Your task to perform on an android device: Open Chrome and go to settings Image 0: 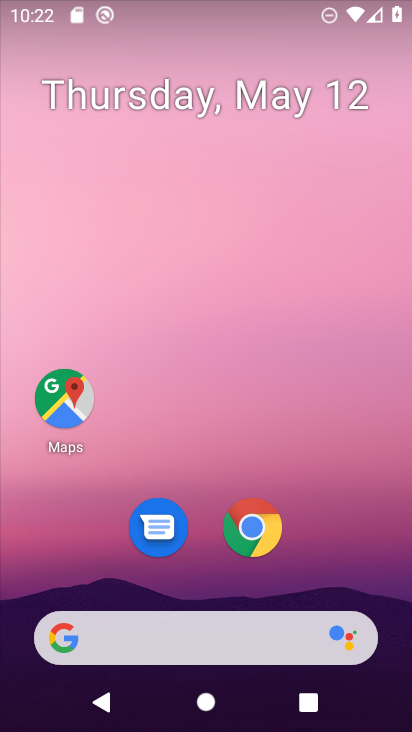
Step 0: click (254, 530)
Your task to perform on an android device: Open Chrome and go to settings Image 1: 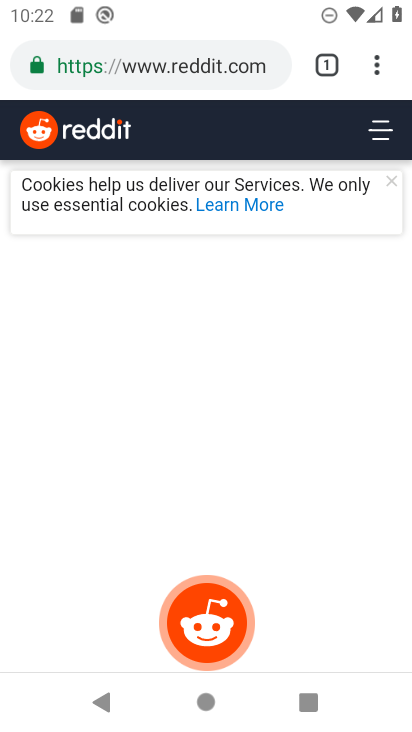
Step 1: click (377, 81)
Your task to perform on an android device: Open Chrome and go to settings Image 2: 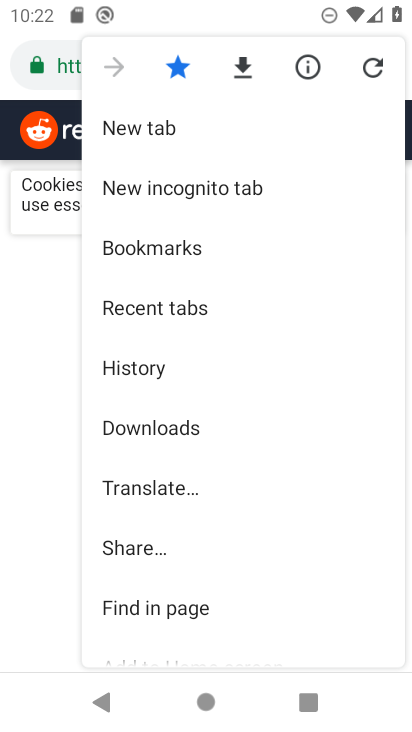
Step 2: drag from (205, 559) to (260, 314)
Your task to perform on an android device: Open Chrome and go to settings Image 3: 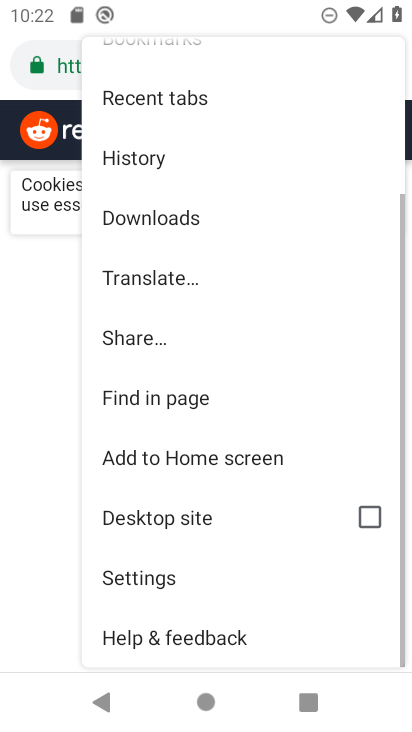
Step 3: click (184, 578)
Your task to perform on an android device: Open Chrome and go to settings Image 4: 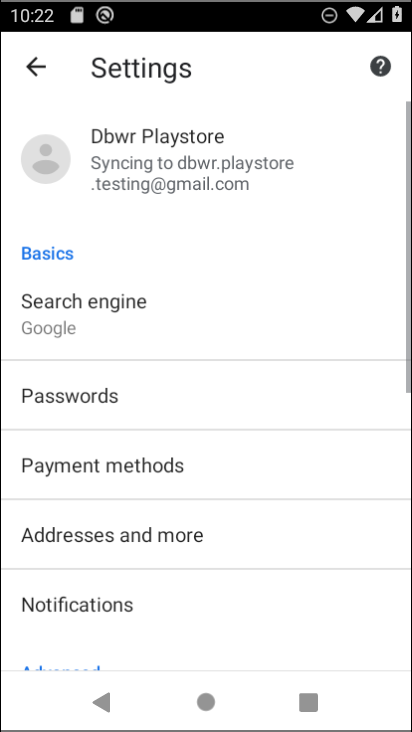
Step 4: task complete